Your task to perform on an android device: Open calendar and show me the second week of next month Image 0: 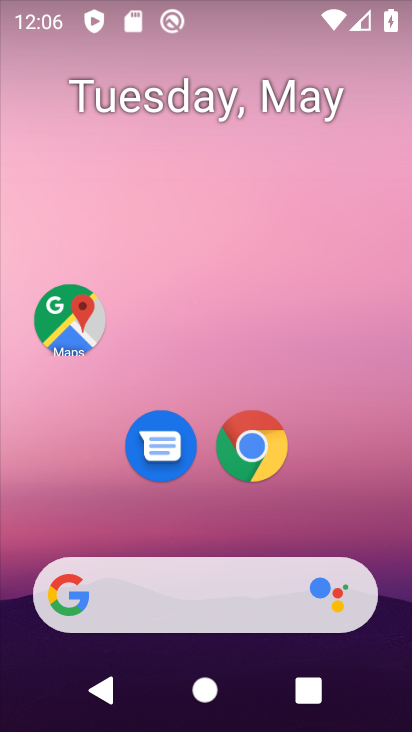
Step 0: drag from (232, 232) to (232, 83)
Your task to perform on an android device: Open calendar and show me the second week of next month Image 1: 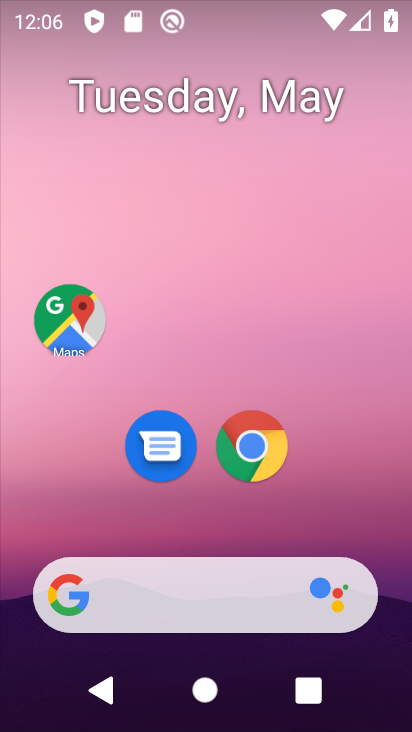
Step 1: drag from (223, 450) to (205, 43)
Your task to perform on an android device: Open calendar and show me the second week of next month Image 2: 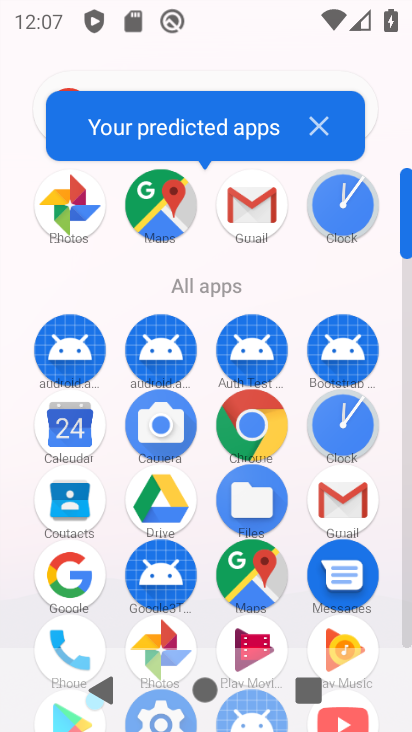
Step 2: click (67, 450)
Your task to perform on an android device: Open calendar and show me the second week of next month Image 3: 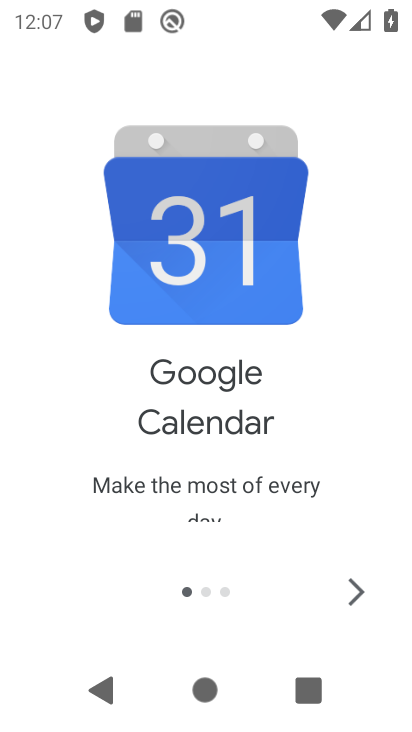
Step 3: click (352, 601)
Your task to perform on an android device: Open calendar and show me the second week of next month Image 4: 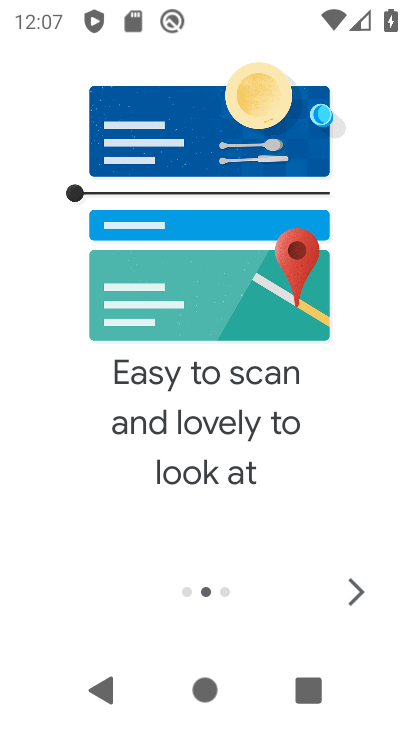
Step 4: click (352, 601)
Your task to perform on an android device: Open calendar and show me the second week of next month Image 5: 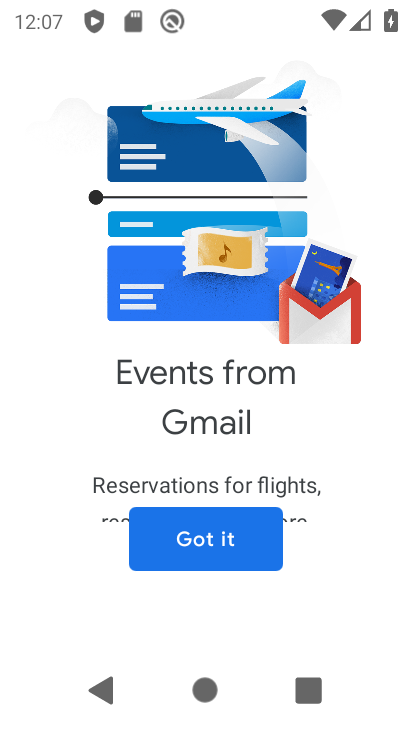
Step 5: click (247, 550)
Your task to perform on an android device: Open calendar and show me the second week of next month Image 6: 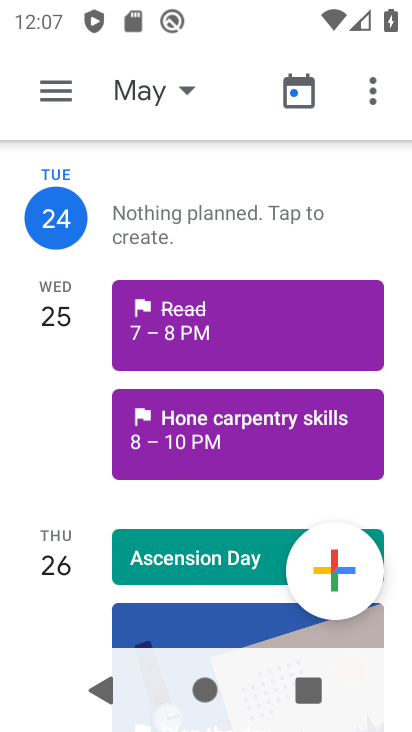
Step 6: click (148, 94)
Your task to perform on an android device: Open calendar and show me the second week of next month Image 7: 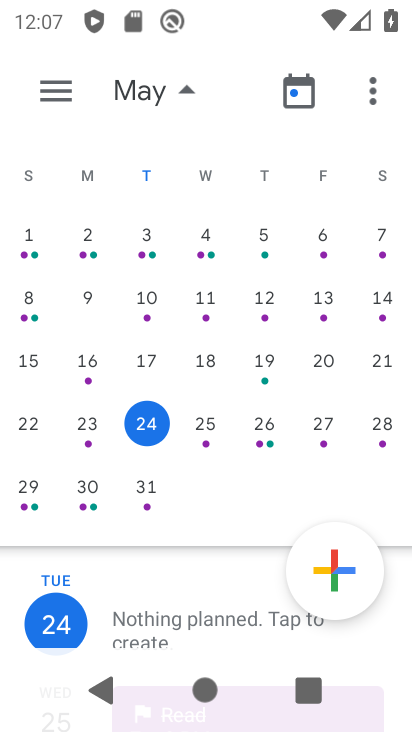
Step 7: drag from (341, 363) to (12, 426)
Your task to perform on an android device: Open calendar and show me the second week of next month Image 8: 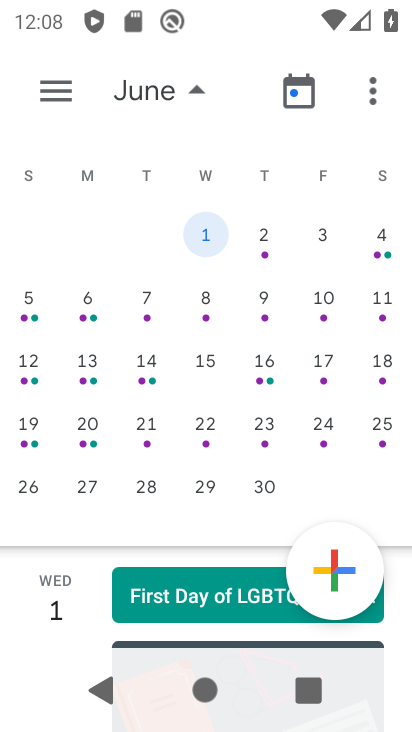
Step 8: click (30, 323)
Your task to perform on an android device: Open calendar and show me the second week of next month Image 9: 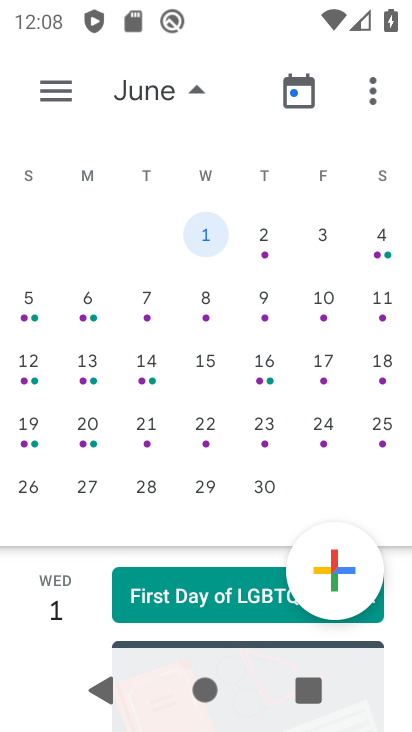
Step 9: click (39, 315)
Your task to perform on an android device: Open calendar and show me the second week of next month Image 10: 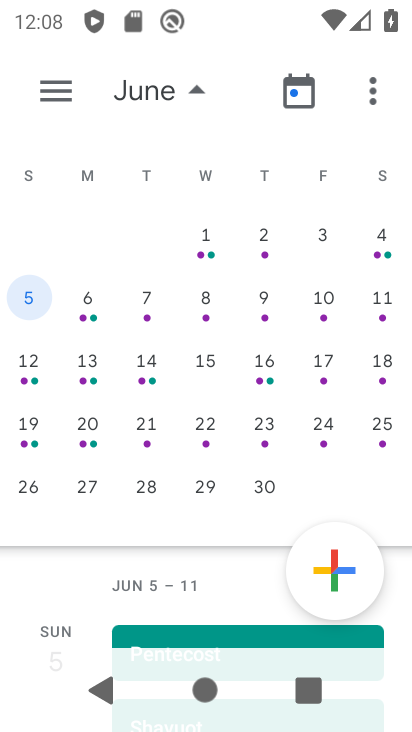
Step 10: task complete